Your task to perform on an android device: change the clock style Image 0: 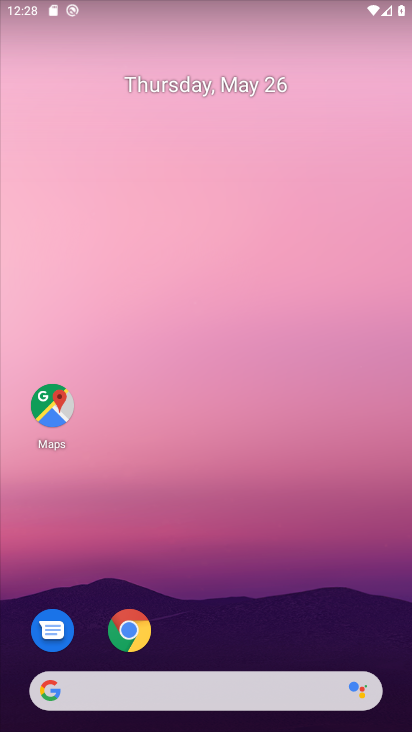
Step 0: press home button
Your task to perform on an android device: change the clock style Image 1: 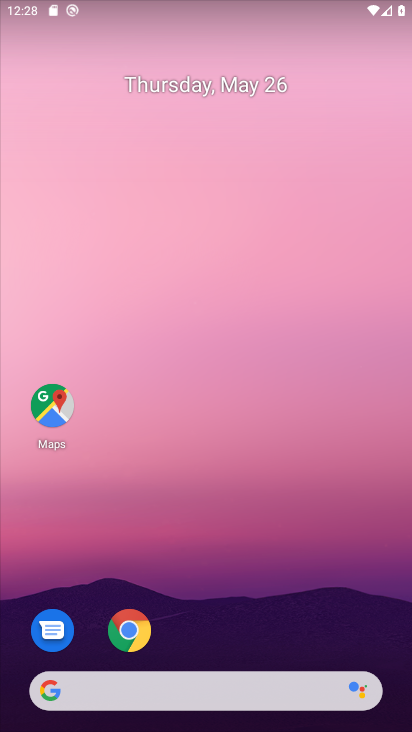
Step 1: drag from (221, 649) to (206, 39)
Your task to perform on an android device: change the clock style Image 2: 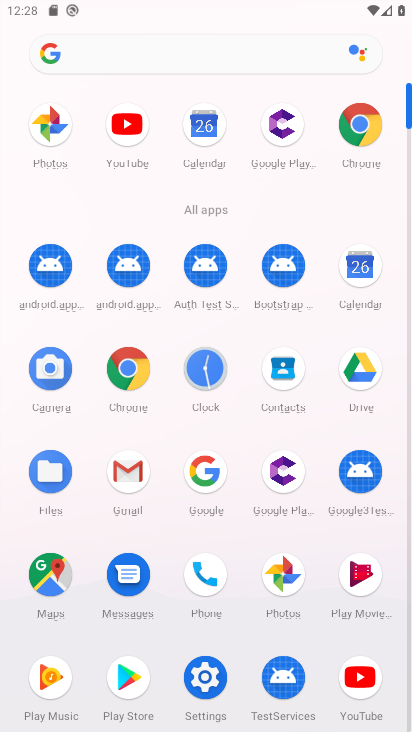
Step 2: click (203, 362)
Your task to perform on an android device: change the clock style Image 3: 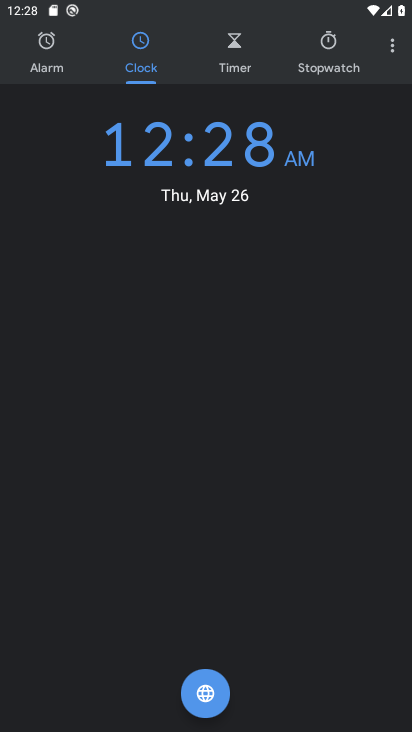
Step 3: click (391, 45)
Your task to perform on an android device: change the clock style Image 4: 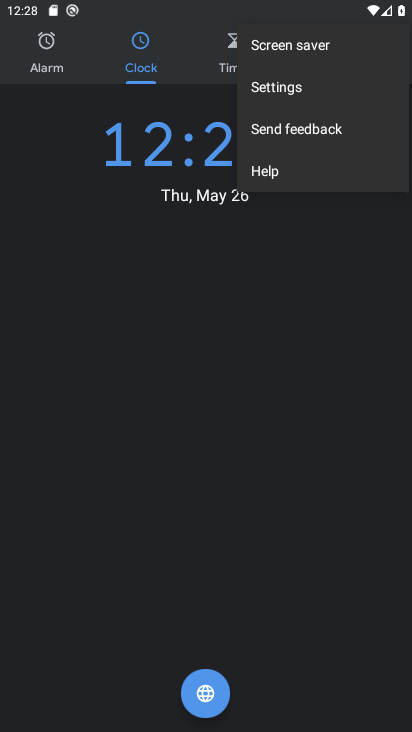
Step 4: click (313, 87)
Your task to perform on an android device: change the clock style Image 5: 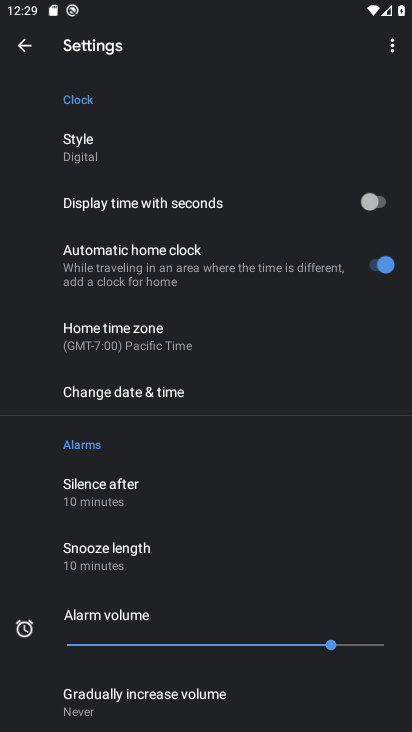
Step 5: click (119, 136)
Your task to perform on an android device: change the clock style Image 6: 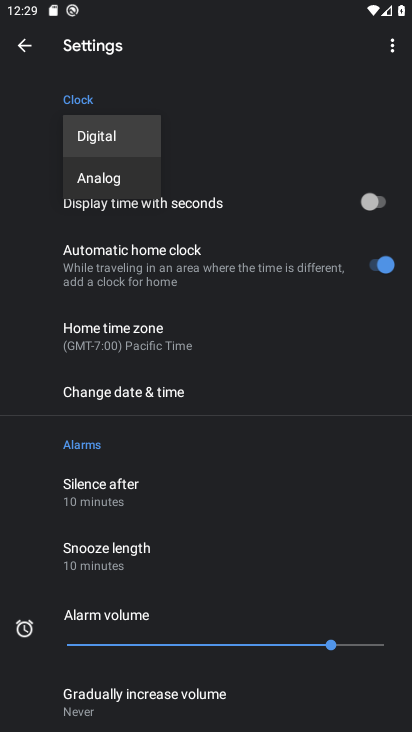
Step 6: click (118, 184)
Your task to perform on an android device: change the clock style Image 7: 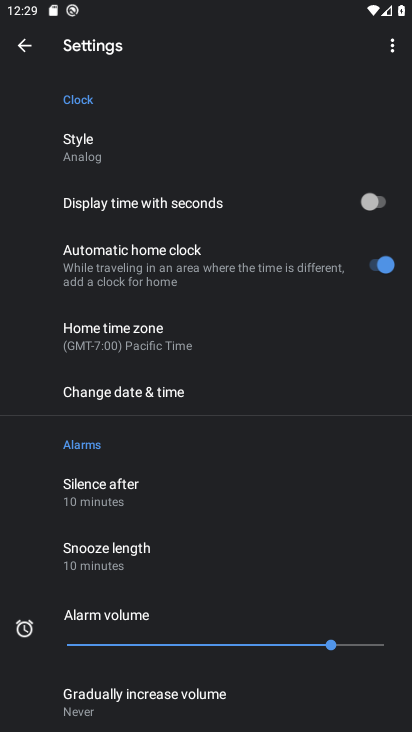
Step 7: task complete